Your task to perform on an android device: What's the news about the US dollar exchange rate? Image 0: 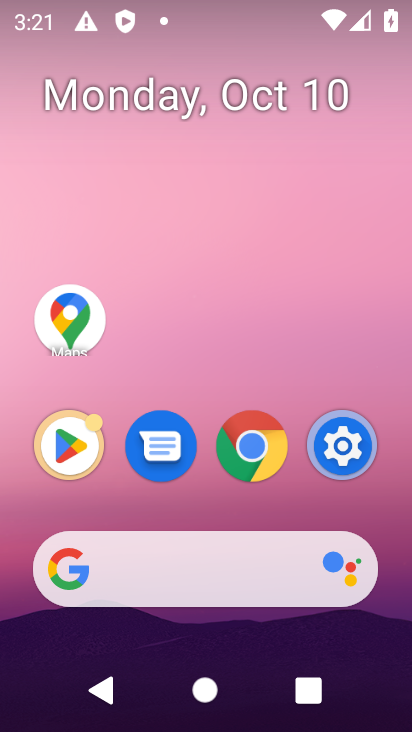
Step 0: click (166, 548)
Your task to perform on an android device: What's the news about the US dollar exchange rate? Image 1: 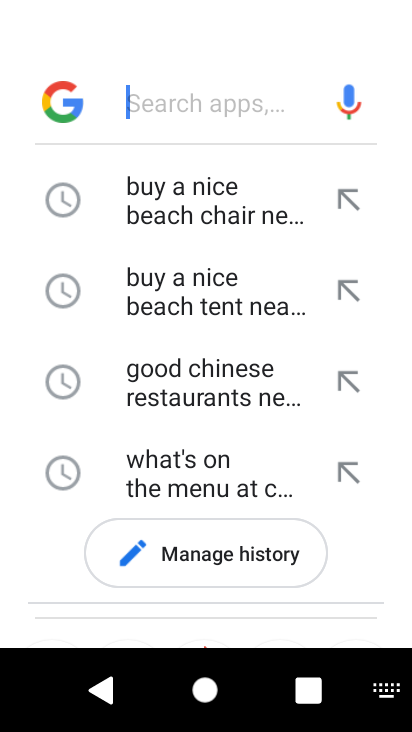
Step 1: type "news about the US dollar exchange rate"
Your task to perform on an android device: What's the news about the US dollar exchange rate? Image 2: 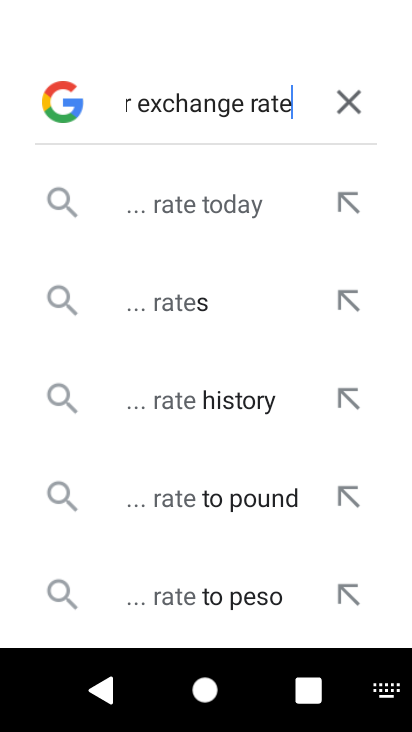
Step 2: type ""
Your task to perform on an android device: What's the news about the US dollar exchange rate? Image 3: 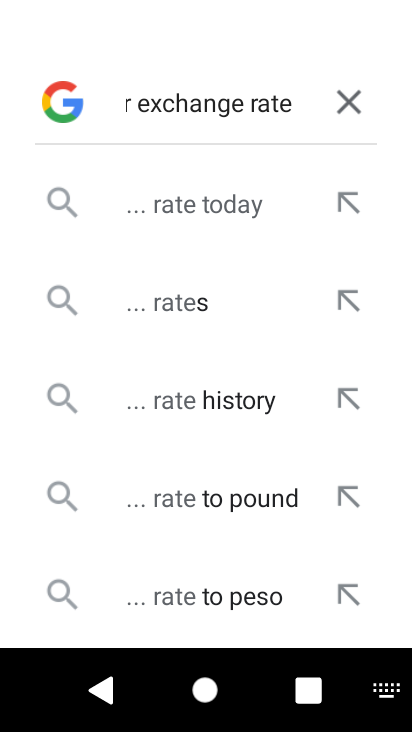
Step 3: click (139, 206)
Your task to perform on an android device: What's the news about the US dollar exchange rate? Image 4: 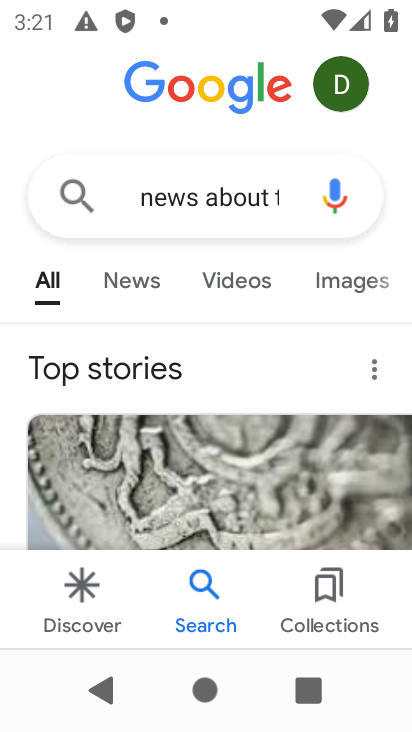
Step 4: drag from (208, 459) to (255, 162)
Your task to perform on an android device: What's the news about the US dollar exchange rate? Image 5: 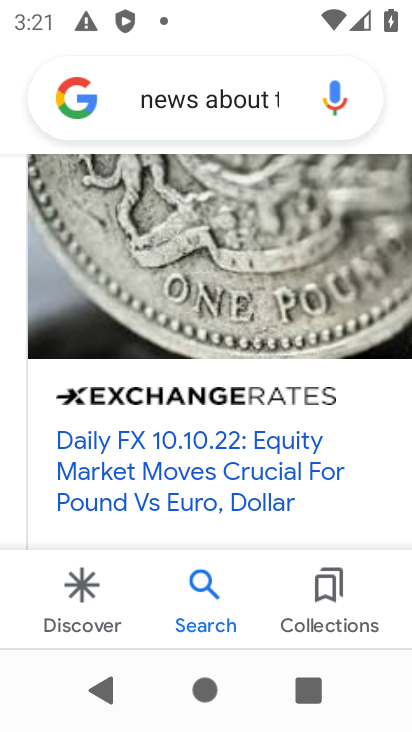
Step 5: drag from (187, 465) to (188, 291)
Your task to perform on an android device: What's the news about the US dollar exchange rate? Image 6: 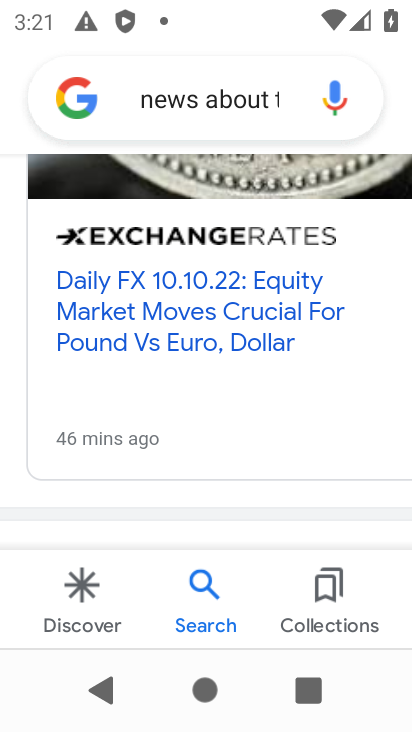
Step 6: drag from (191, 415) to (211, 304)
Your task to perform on an android device: What's the news about the US dollar exchange rate? Image 7: 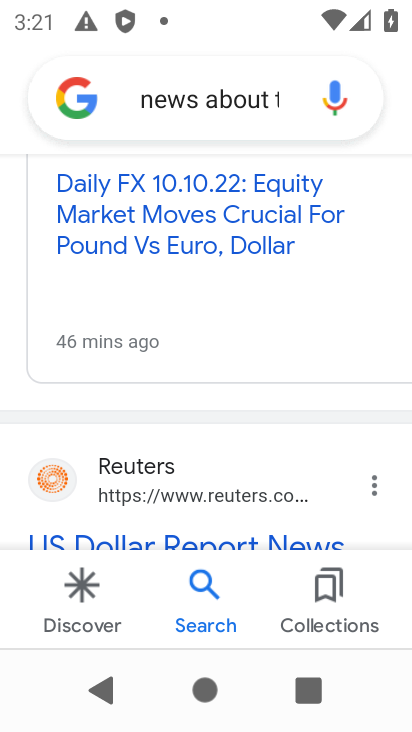
Step 7: drag from (213, 412) to (224, 243)
Your task to perform on an android device: What's the news about the US dollar exchange rate? Image 8: 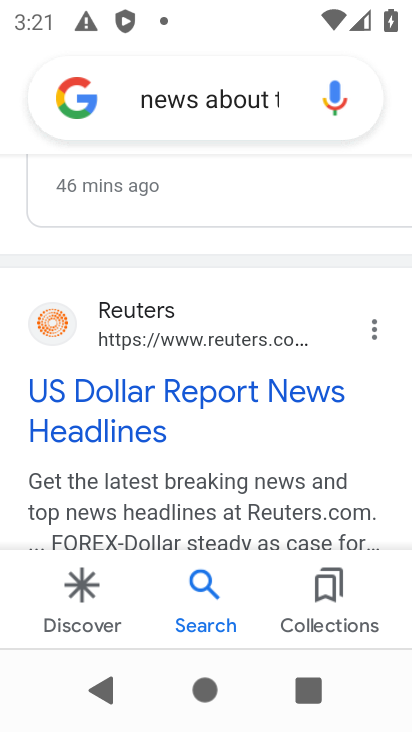
Step 8: drag from (227, 261) to (241, 447)
Your task to perform on an android device: What's the news about the US dollar exchange rate? Image 9: 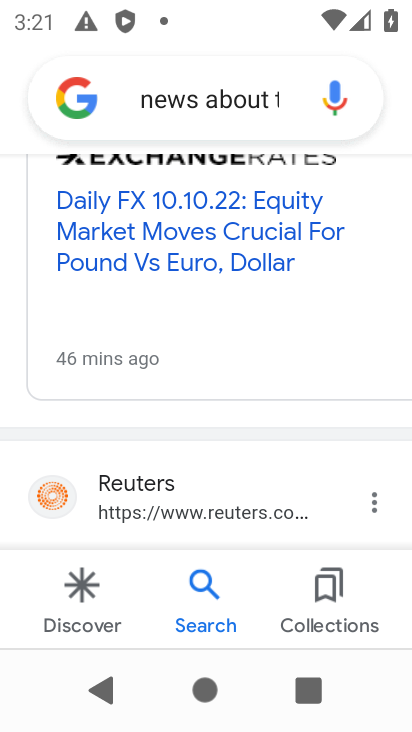
Step 9: drag from (203, 207) to (223, 451)
Your task to perform on an android device: What's the news about the US dollar exchange rate? Image 10: 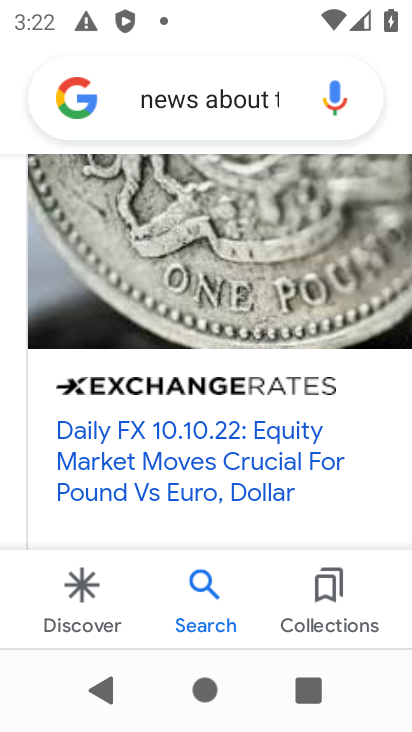
Step 10: click (233, 394)
Your task to perform on an android device: What's the news about the US dollar exchange rate? Image 11: 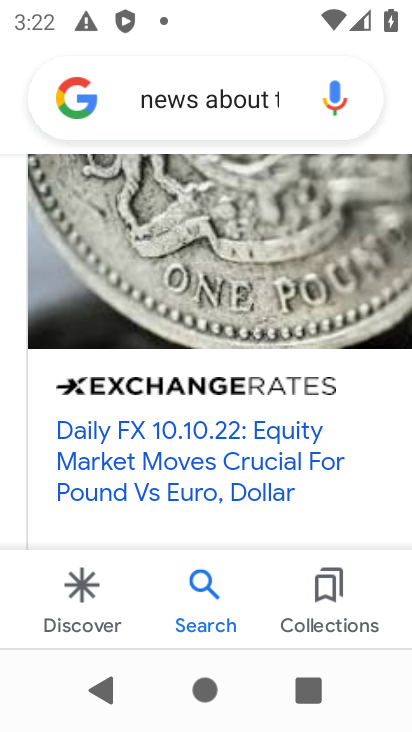
Step 11: task complete